Your task to perform on an android device: Add bose soundlink to the cart on walmart Image 0: 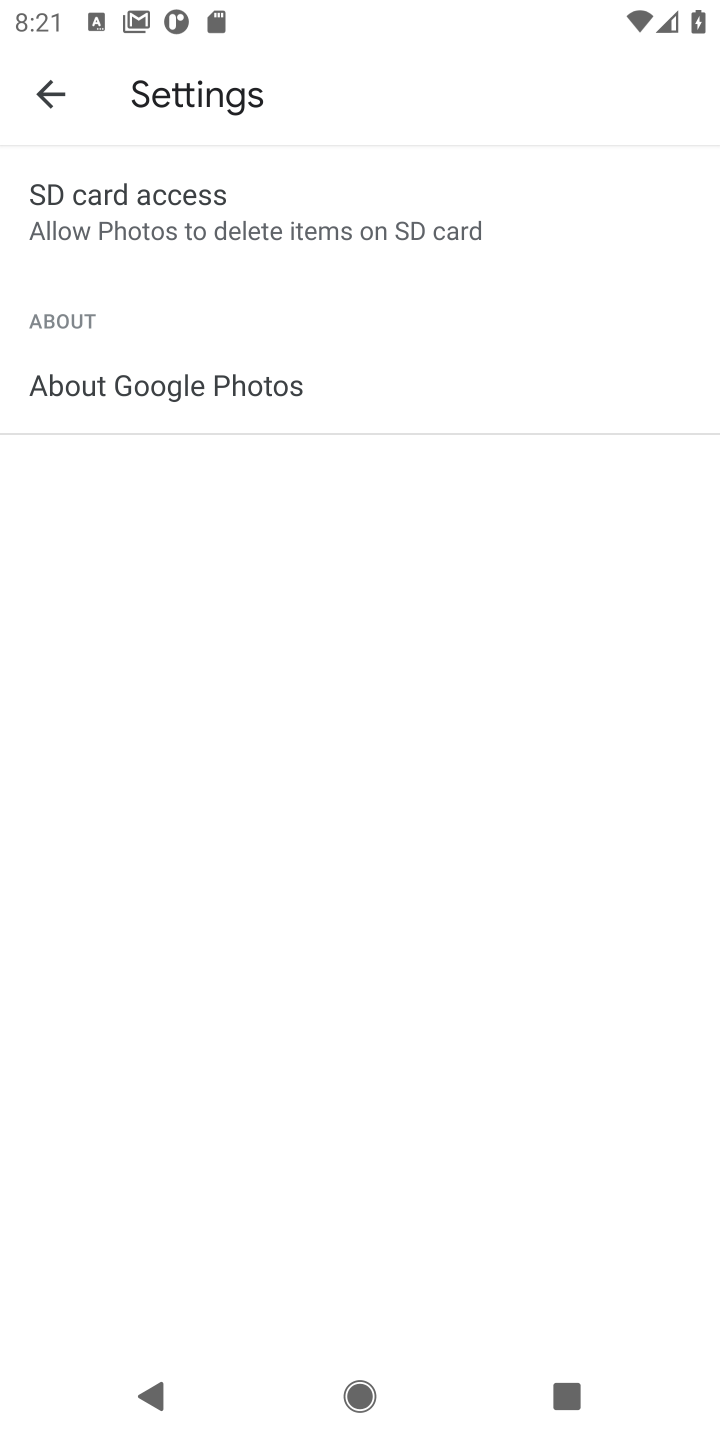
Step 0: task complete